Your task to perform on an android device: Search for seafood restaurants on Google Maps Image 0: 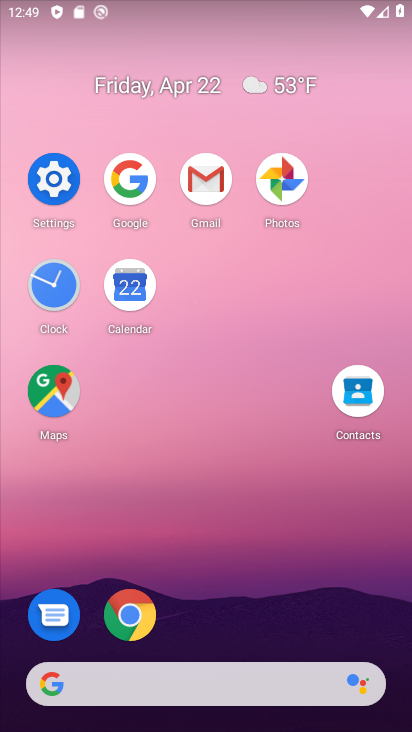
Step 0: click (40, 388)
Your task to perform on an android device: Search for seafood restaurants on Google Maps Image 1: 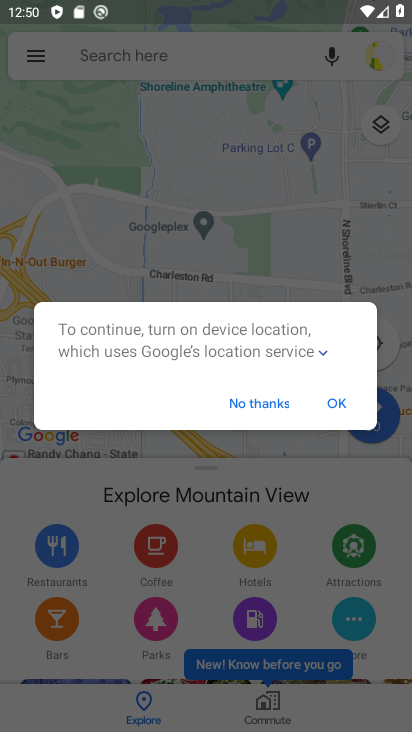
Step 1: click (342, 401)
Your task to perform on an android device: Search for seafood restaurants on Google Maps Image 2: 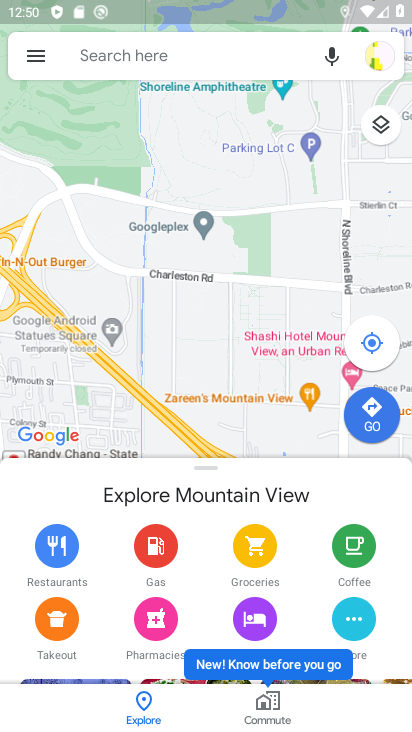
Step 2: click (209, 70)
Your task to perform on an android device: Search for seafood restaurants on Google Maps Image 3: 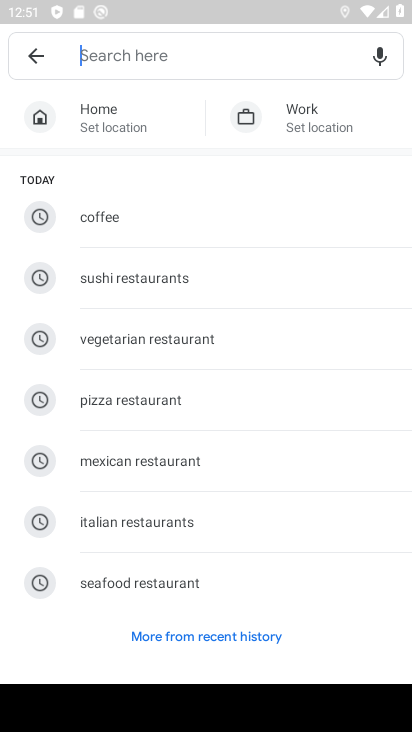
Step 3: type "seafood restaurants"
Your task to perform on an android device: Search for seafood restaurants on Google Maps Image 4: 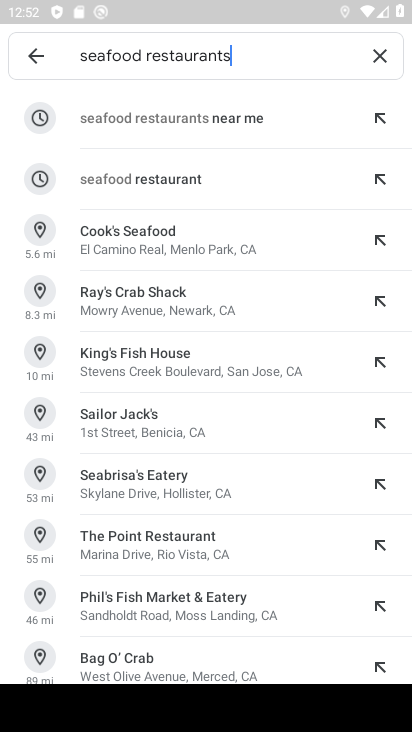
Step 4: task complete